Your task to perform on an android device: Open Google Chrome and open the bookmarks view Image 0: 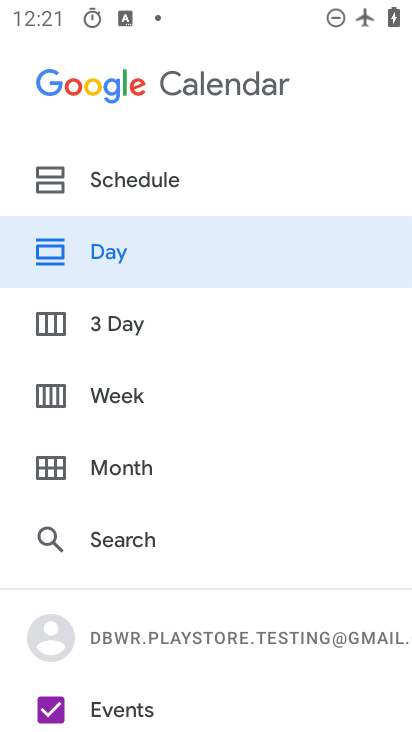
Step 0: press home button
Your task to perform on an android device: Open Google Chrome and open the bookmarks view Image 1: 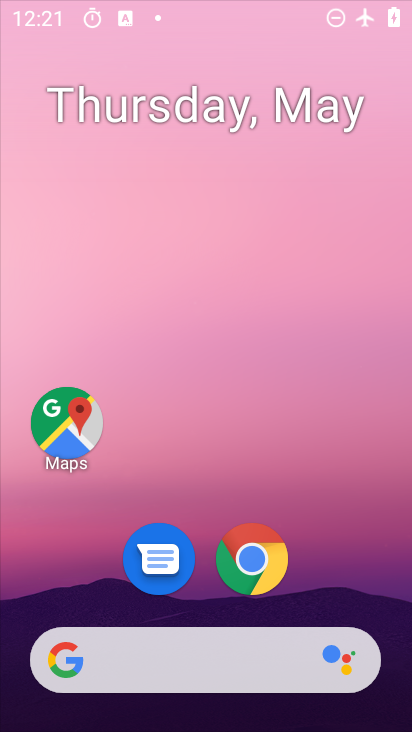
Step 1: drag from (232, 624) to (253, 122)
Your task to perform on an android device: Open Google Chrome and open the bookmarks view Image 2: 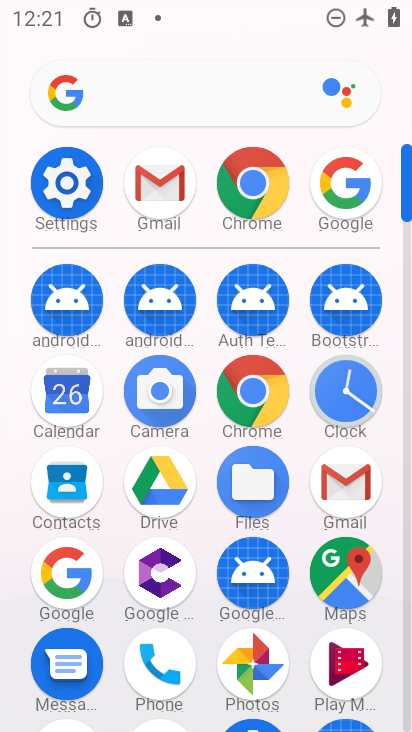
Step 2: click (250, 197)
Your task to perform on an android device: Open Google Chrome and open the bookmarks view Image 3: 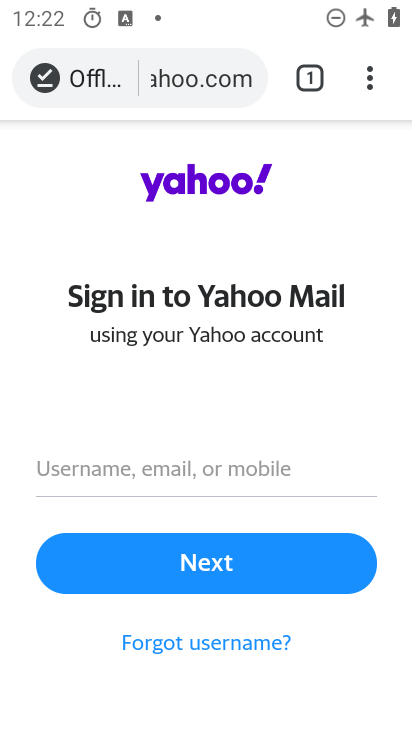
Step 3: click (376, 83)
Your task to perform on an android device: Open Google Chrome and open the bookmarks view Image 4: 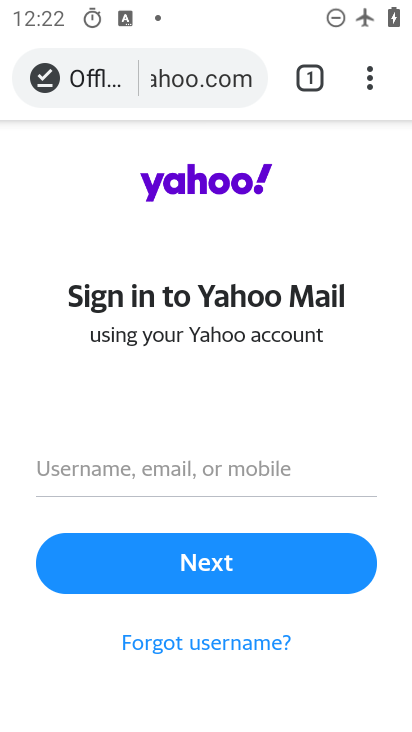
Step 4: click (375, 84)
Your task to perform on an android device: Open Google Chrome and open the bookmarks view Image 5: 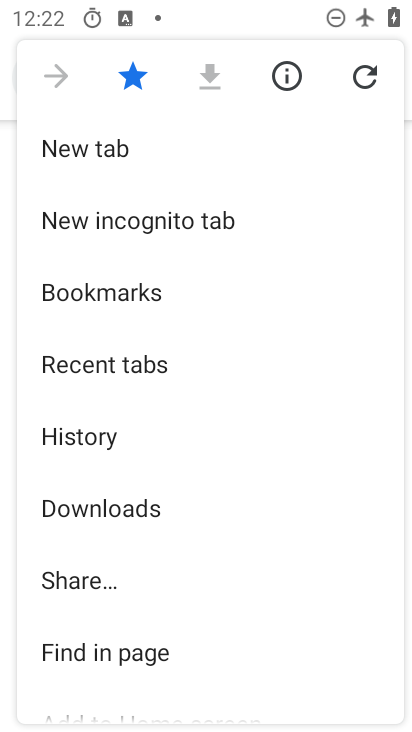
Step 5: click (131, 270)
Your task to perform on an android device: Open Google Chrome and open the bookmarks view Image 6: 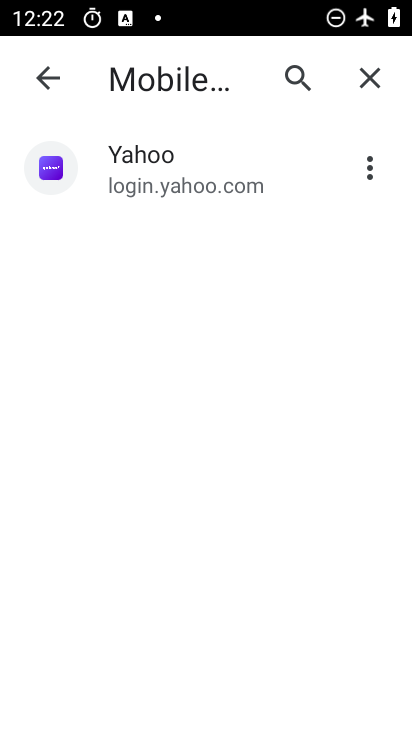
Step 6: task complete